Your task to perform on an android device: Go to accessibility settings Image 0: 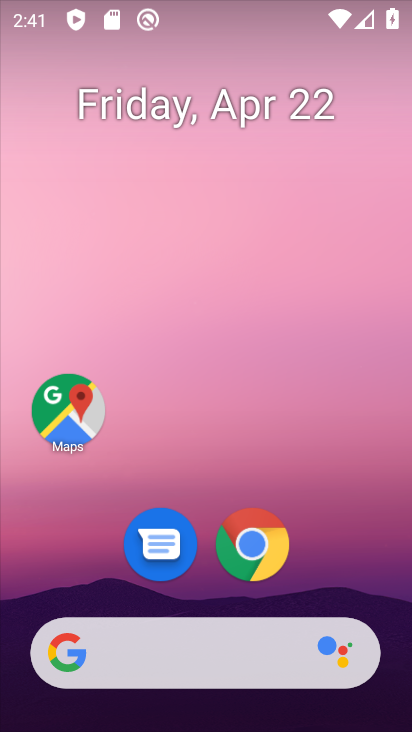
Step 0: drag from (339, 495) to (357, 136)
Your task to perform on an android device: Go to accessibility settings Image 1: 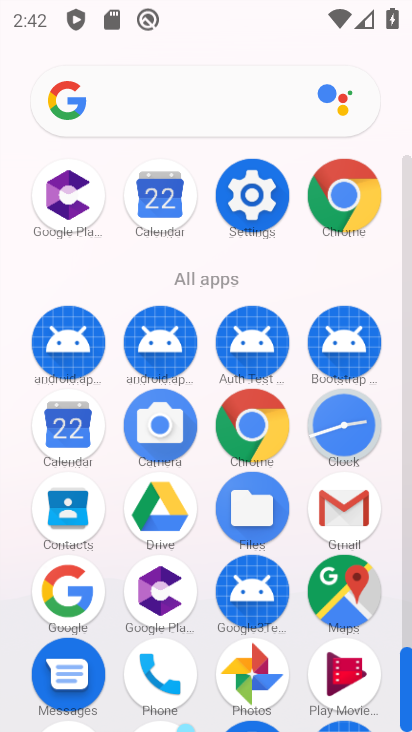
Step 1: click (265, 202)
Your task to perform on an android device: Go to accessibility settings Image 2: 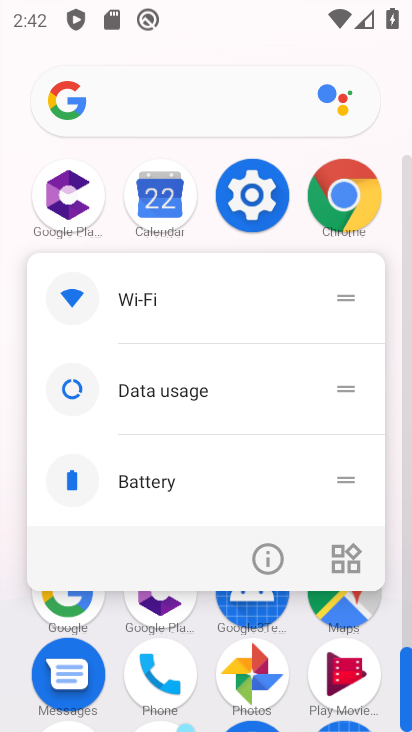
Step 2: click (255, 205)
Your task to perform on an android device: Go to accessibility settings Image 3: 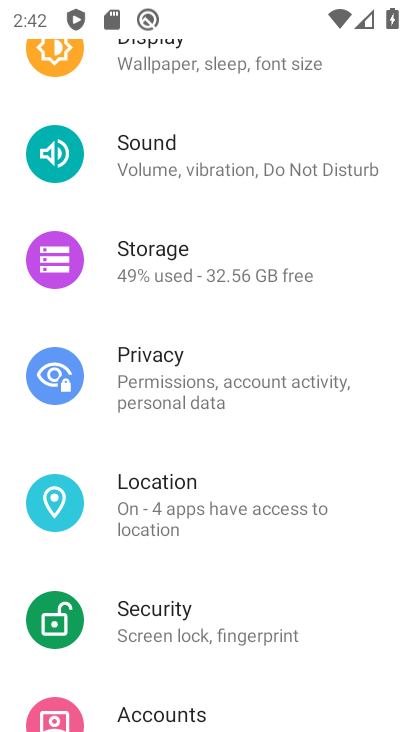
Step 3: drag from (245, 620) to (326, 146)
Your task to perform on an android device: Go to accessibility settings Image 4: 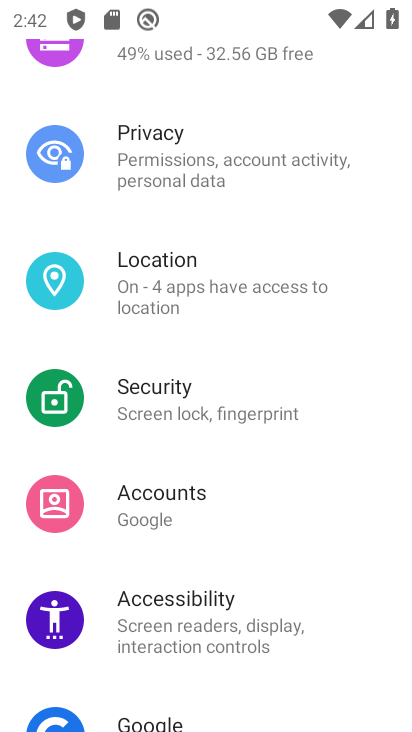
Step 4: click (244, 624)
Your task to perform on an android device: Go to accessibility settings Image 5: 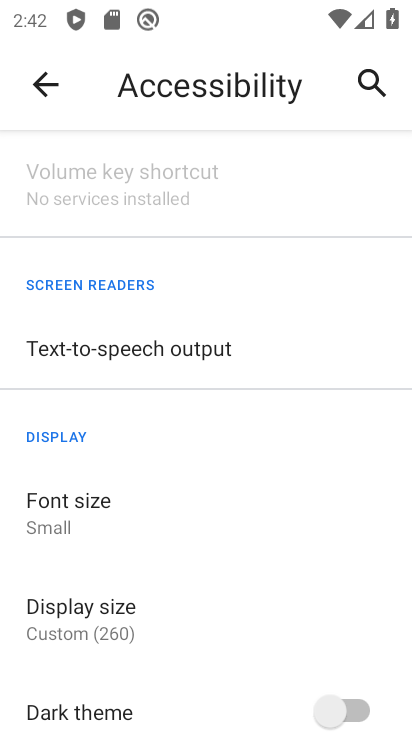
Step 5: task complete